Your task to perform on an android device: turn on showing notifications on the lock screen Image 0: 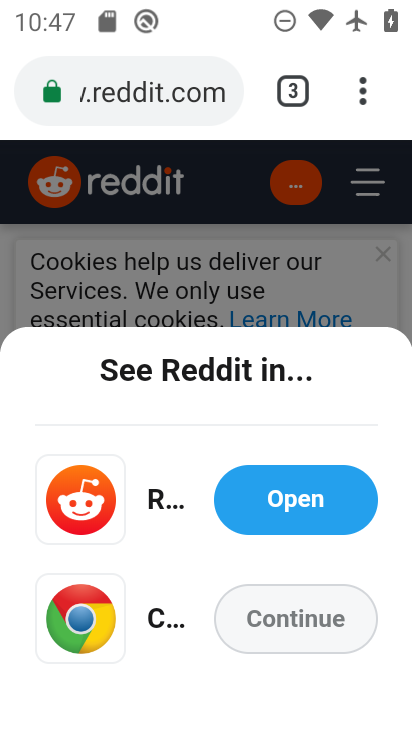
Step 0: press home button
Your task to perform on an android device: turn on showing notifications on the lock screen Image 1: 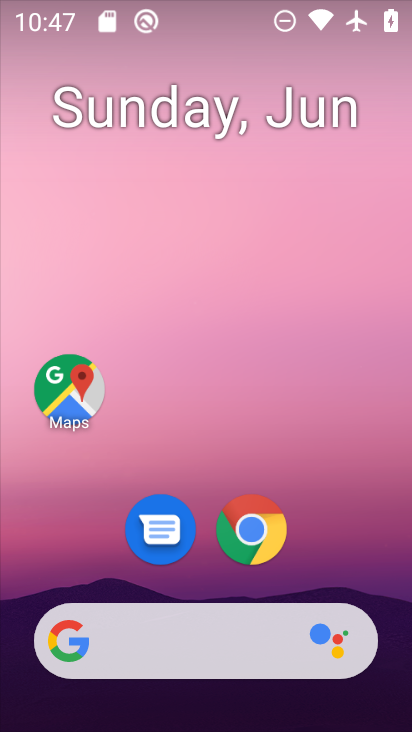
Step 1: drag from (395, 643) to (336, 2)
Your task to perform on an android device: turn on showing notifications on the lock screen Image 2: 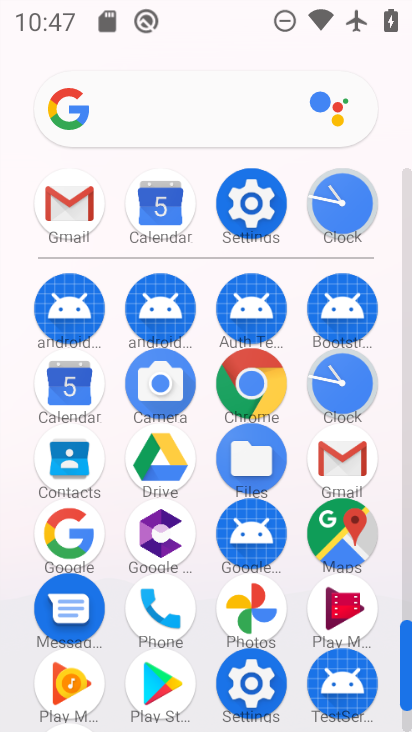
Step 2: click (404, 560)
Your task to perform on an android device: turn on showing notifications on the lock screen Image 3: 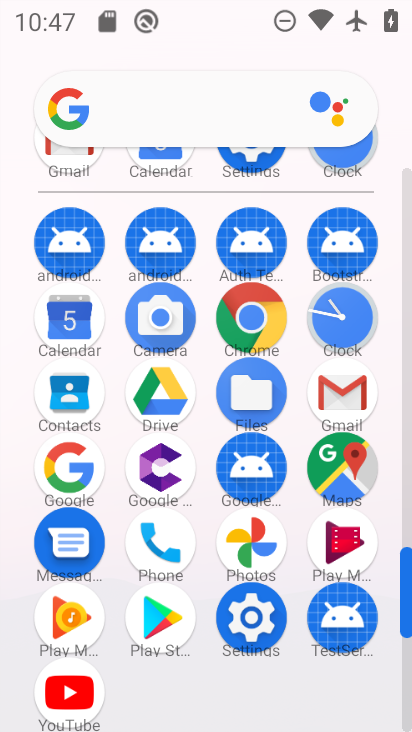
Step 3: click (251, 618)
Your task to perform on an android device: turn on showing notifications on the lock screen Image 4: 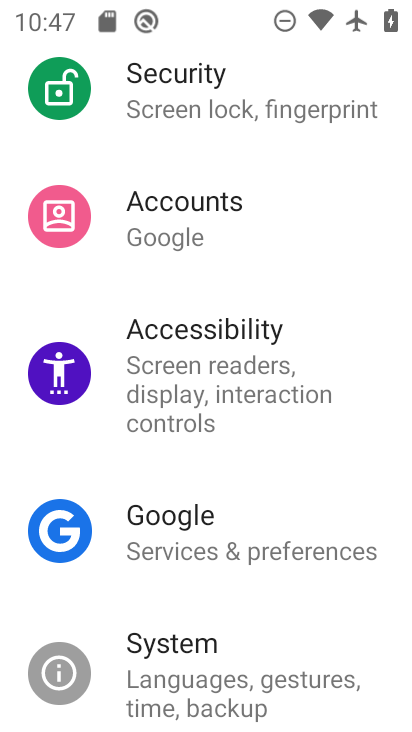
Step 4: drag from (365, 238) to (399, 634)
Your task to perform on an android device: turn on showing notifications on the lock screen Image 5: 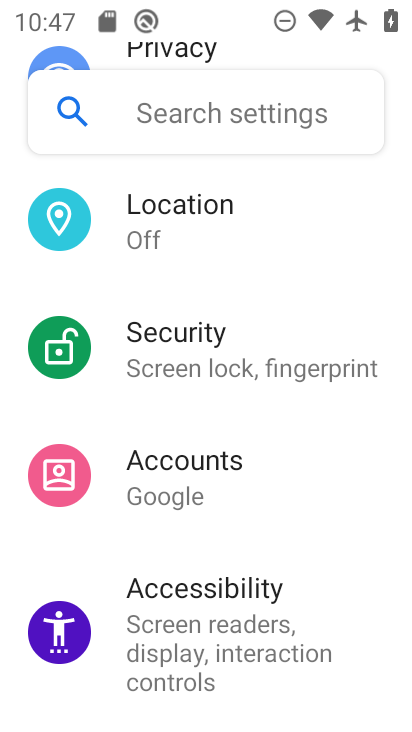
Step 5: drag from (369, 246) to (365, 589)
Your task to perform on an android device: turn on showing notifications on the lock screen Image 6: 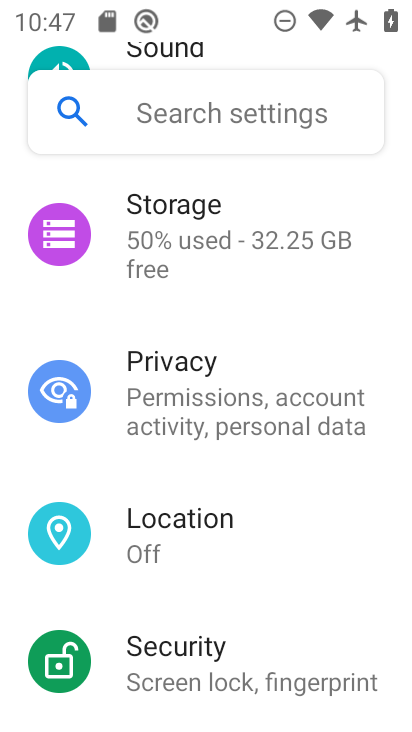
Step 6: drag from (381, 205) to (360, 574)
Your task to perform on an android device: turn on showing notifications on the lock screen Image 7: 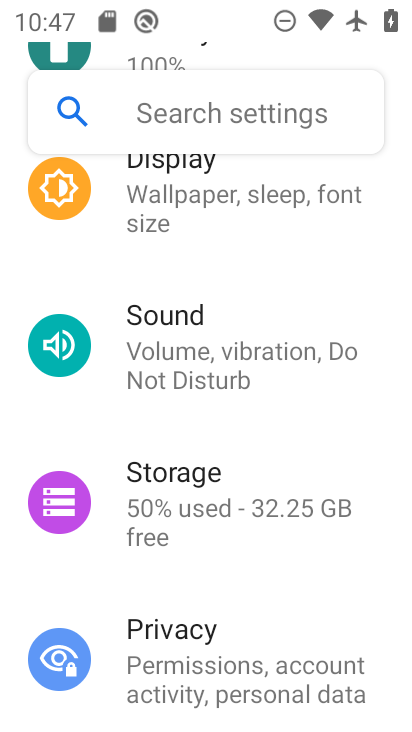
Step 7: drag from (383, 205) to (359, 624)
Your task to perform on an android device: turn on showing notifications on the lock screen Image 8: 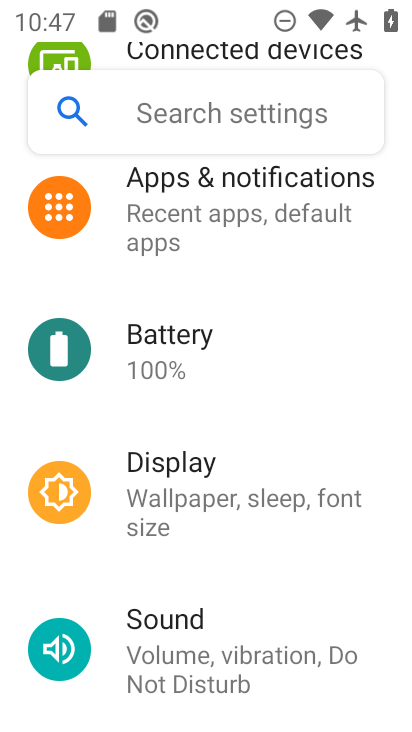
Step 8: drag from (344, 285) to (339, 517)
Your task to perform on an android device: turn on showing notifications on the lock screen Image 9: 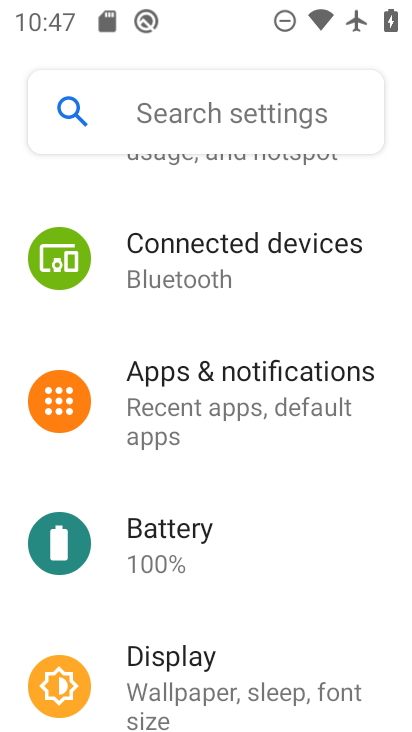
Step 9: click (189, 404)
Your task to perform on an android device: turn on showing notifications on the lock screen Image 10: 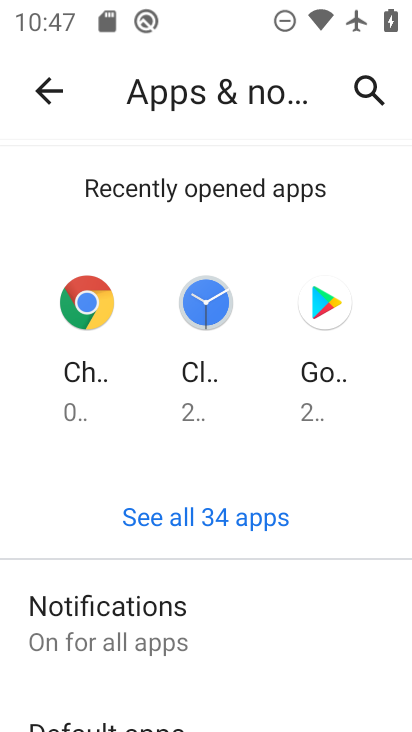
Step 10: click (146, 610)
Your task to perform on an android device: turn on showing notifications on the lock screen Image 11: 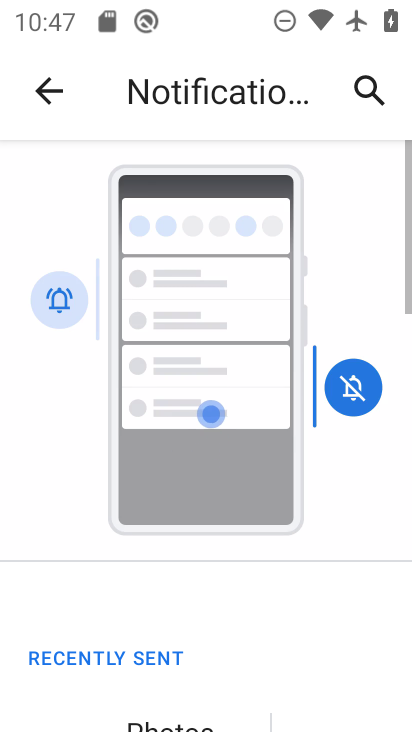
Step 11: drag from (298, 617) to (204, 54)
Your task to perform on an android device: turn on showing notifications on the lock screen Image 12: 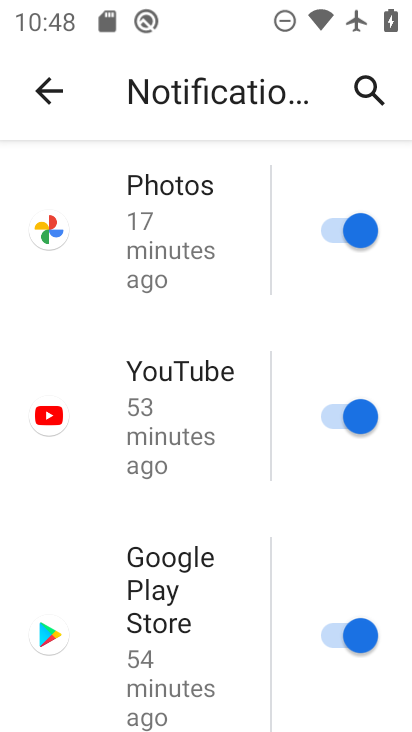
Step 12: drag from (266, 636) to (291, 332)
Your task to perform on an android device: turn on showing notifications on the lock screen Image 13: 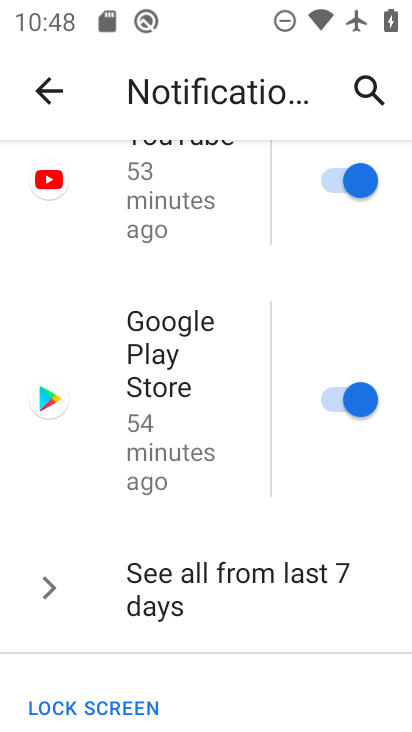
Step 13: drag from (282, 654) to (227, 240)
Your task to perform on an android device: turn on showing notifications on the lock screen Image 14: 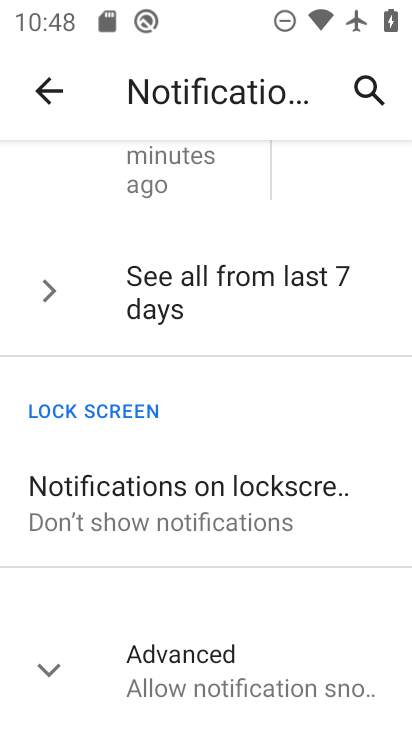
Step 14: click (145, 511)
Your task to perform on an android device: turn on showing notifications on the lock screen Image 15: 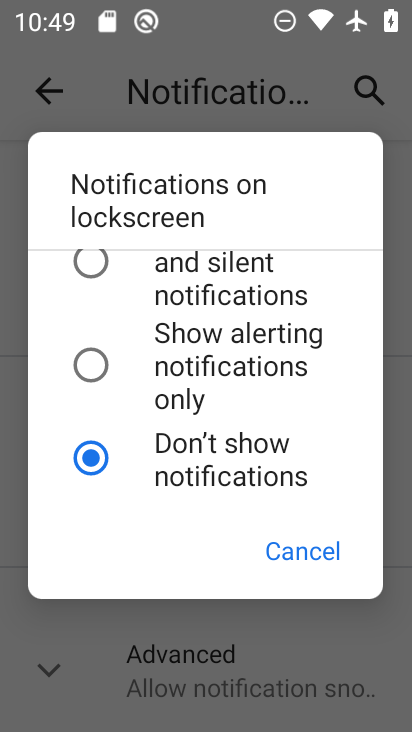
Step 15: click (92, 269)
Your task to perform on an android device: turn on showing notifications on the lock screen Image 16: 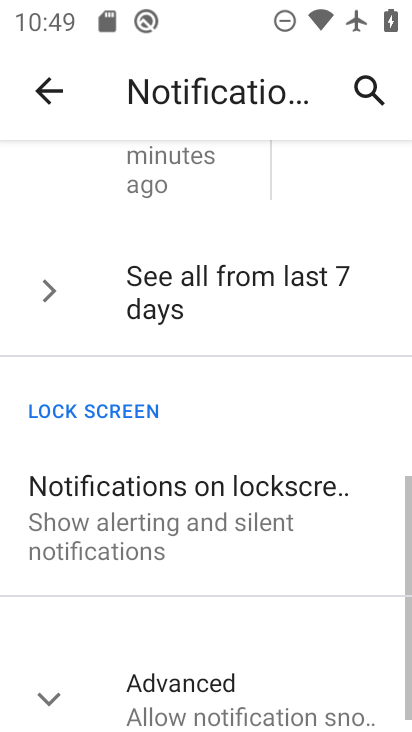
Step 16: task complete